Your task to perform on an android device: Go to location settings Image 0: 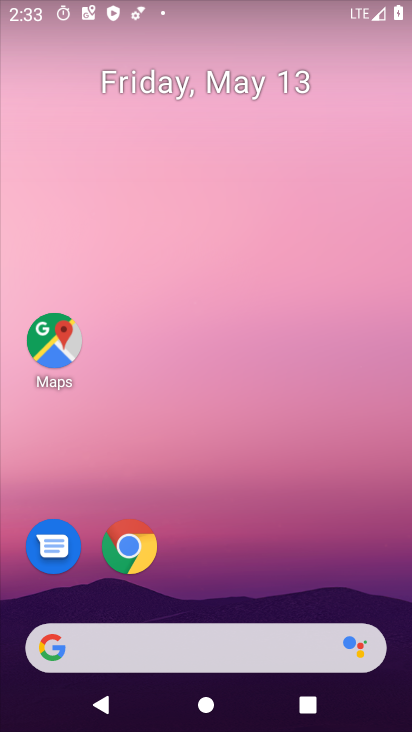
Step 0: drag from (270, 620) to (270, 203)
Your task to perform on an android device: Go to location settings Image 1: 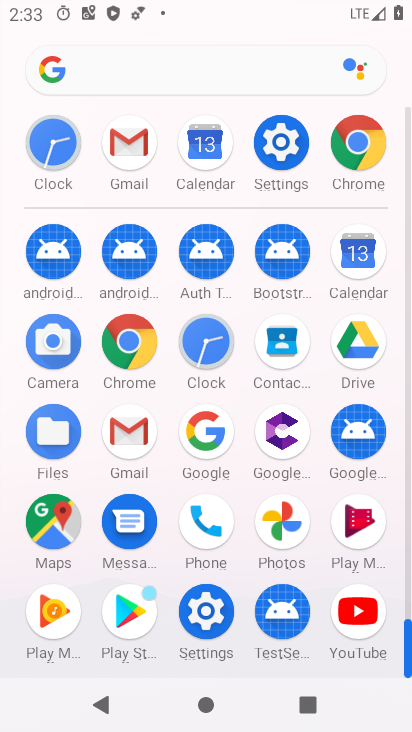
Step 1: click (283, 180)
Your task to perform on an android device: Go to location settings Image 2: 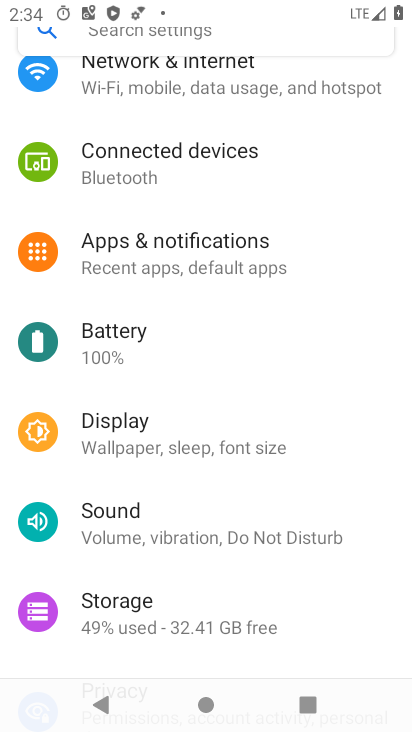
Step 2: click (214, 341)
Your task to perform on an android device: Go to location settings Image 3: 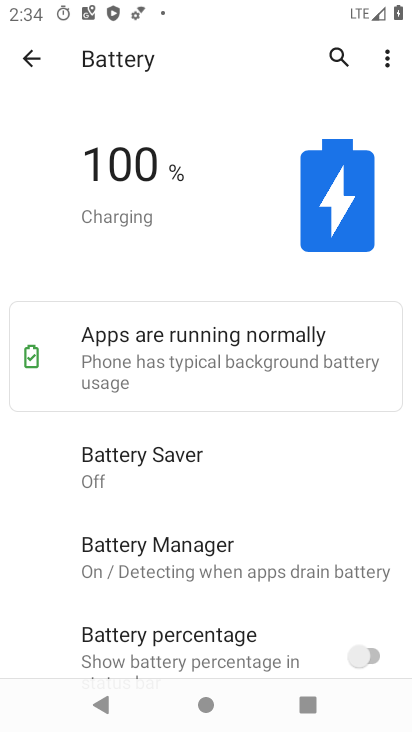
Step 3: click (40, 62)
Your task to perform on an android device: Go to location settings Image 4: 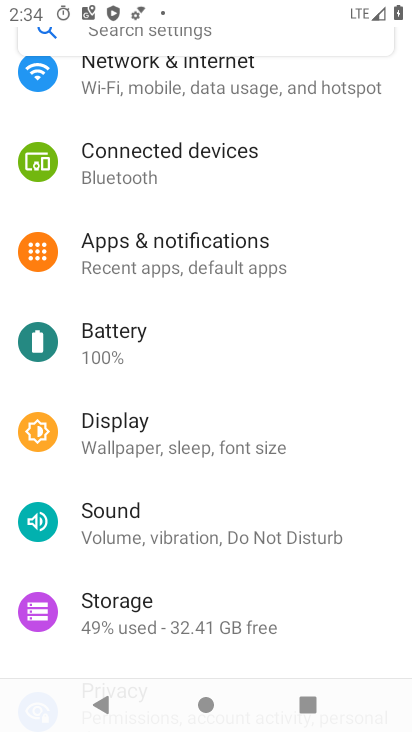
Step 4: drag from (181, 400) to (198, 279)
Your task to perform on an android device: Go to location settings Image 5: 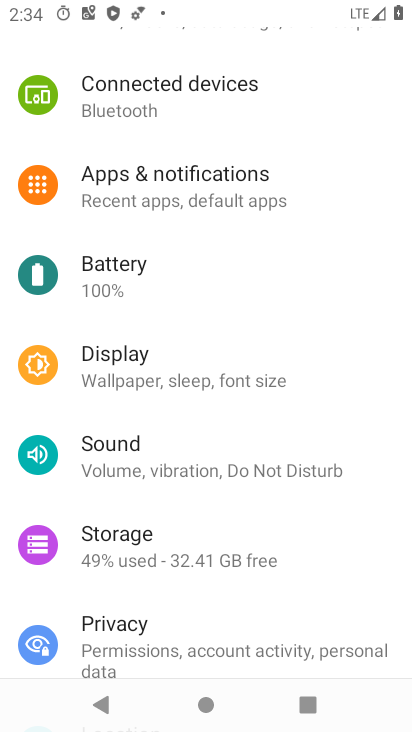
Step 5: drag from (198, 279) to (187, 543)
Your task to perform on an android device: Go to location settings Image 6: 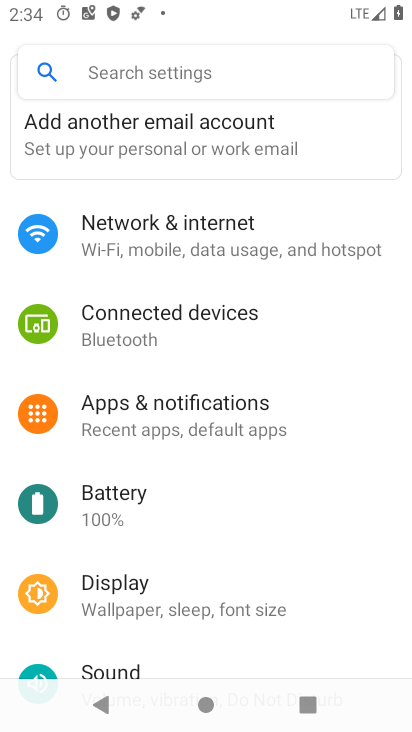
Step 6: drag from (207, 550) to (250, 240)
Your task to perform on an android device: Go to location settings Image 7: 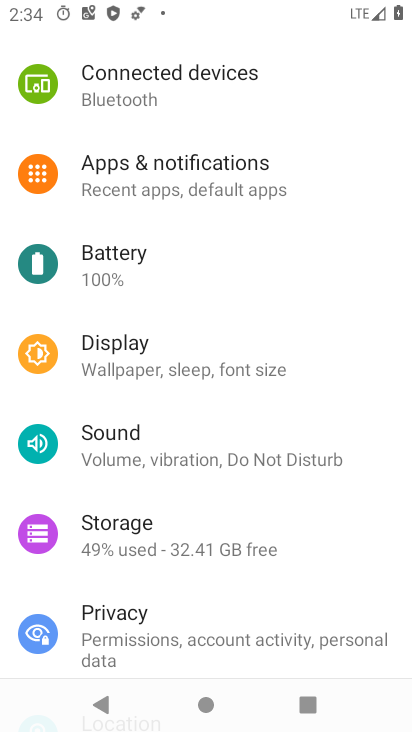
Step 7: drag from (223, 478) to (265, 274)
Your task to perform on an android device: Go to location settings Image 8: 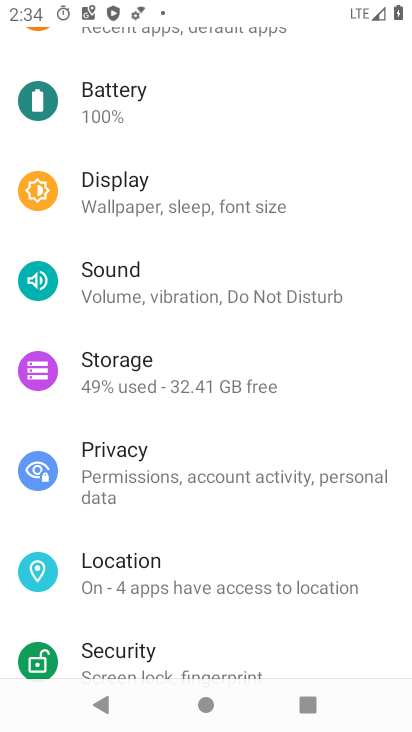
Step 8: drag from (213, 526) to (228, 414)
Your task to perform on an android device: Go to location settings Image 9: 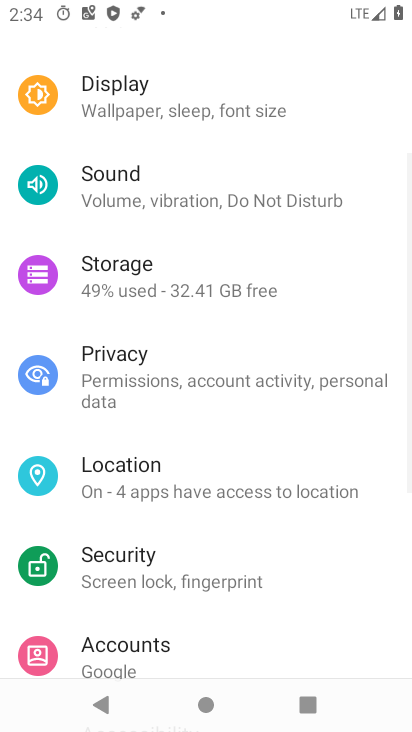
Step 9: drag from (207, 519) to (220, 431)
Your task to perform on an android device: Go to location settings Image 10: 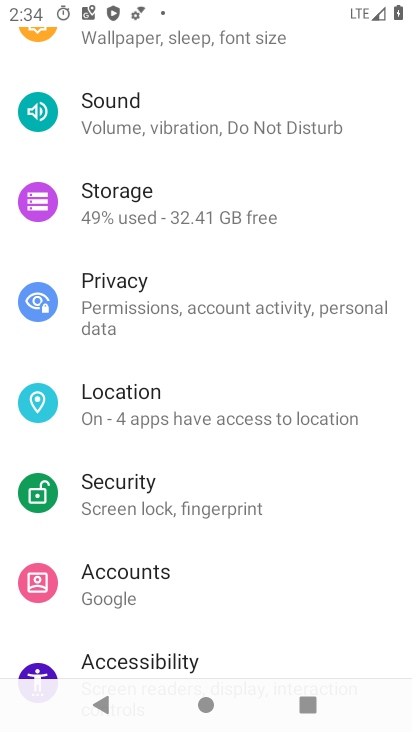
Step 10: click (220, 406)
Your task to perform on an android device: Go to location settings Image 11: 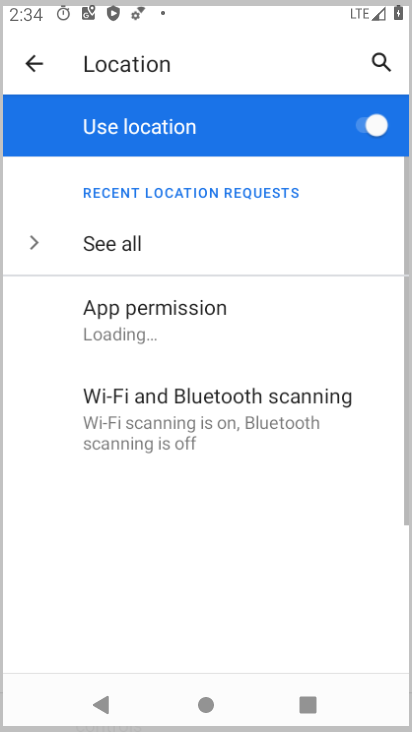
Step 11: task complete